Your task to perform on an android device: see sites visited before in the chrome app Image 0: 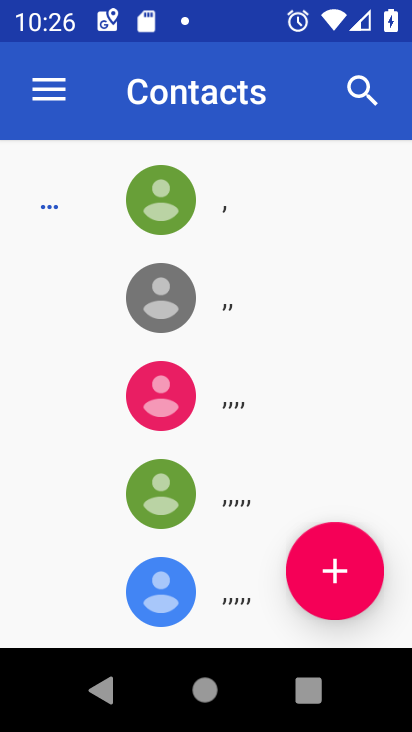
Step 0: press home button
Your task to perform on an android device: see sites visited before in the chrome app Image 1: 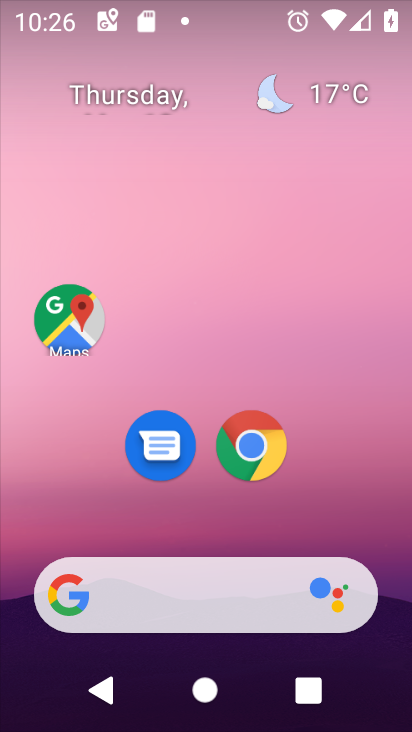
Step 1: drag from (266, 518) to (280, 188)
Your task to perform on an android device: see sites visited before in the chrome app Image 2: 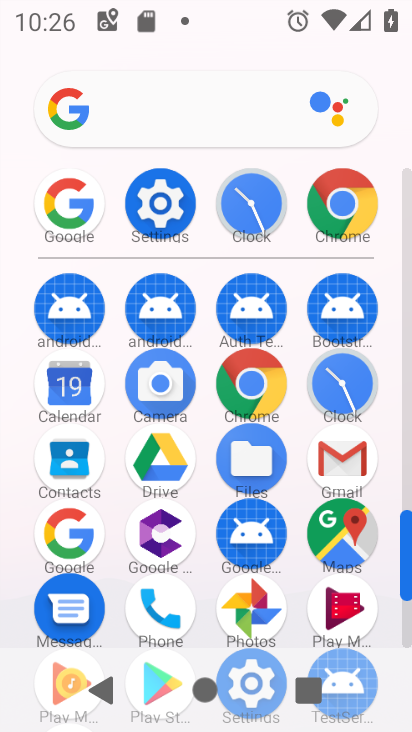
Step 2: click (256, 382)
Your task to perform on an android device: see sites visited before in the chrome app Image 3: 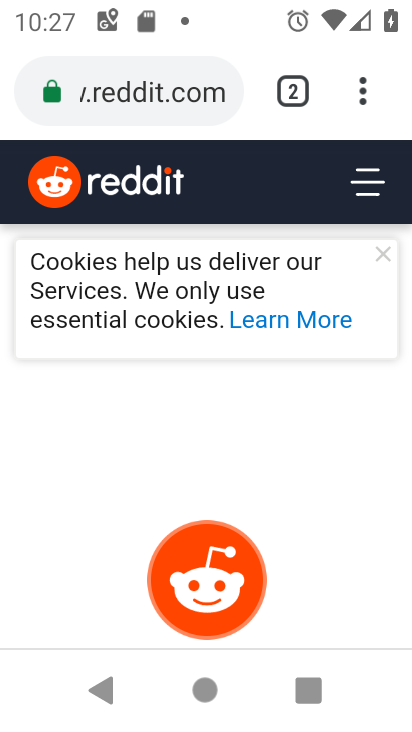
Step 3: click (356, 100)
Your task to perform on an android device: see sites visited before in the chrome app Image 4: 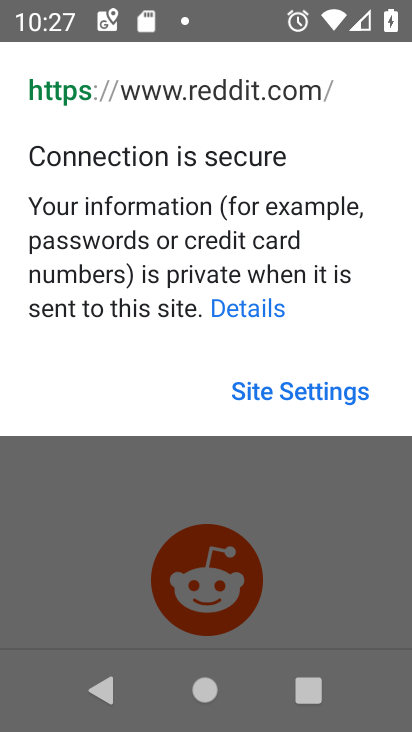
Step 4: click (326, 405)
Your task to perform on an android device: see sites visited before in the chrome app Image 5: 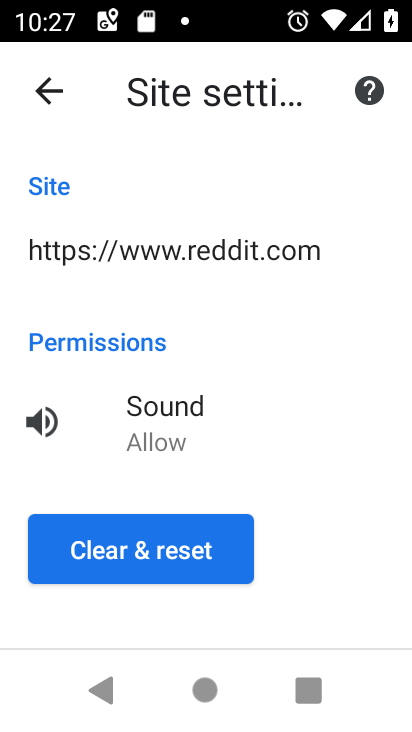
Step 5: click (84, 695)
Your task to perform on an android device: see sites visited before in the chrome app Image 6: 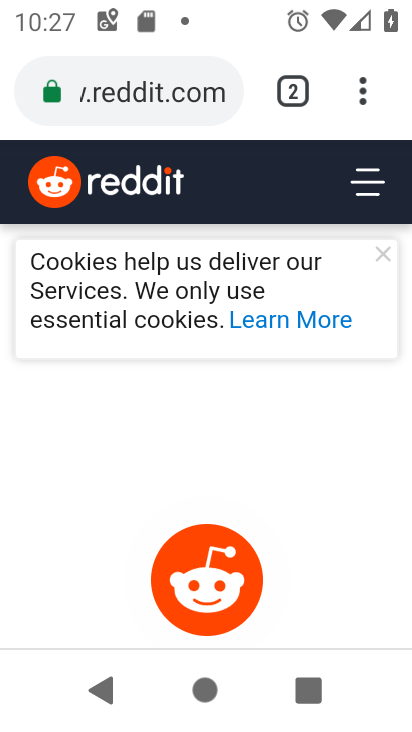
Step 6: click (362, 97)
Your task to perform on an android device: see sites visited before in the chrome app Image 7: 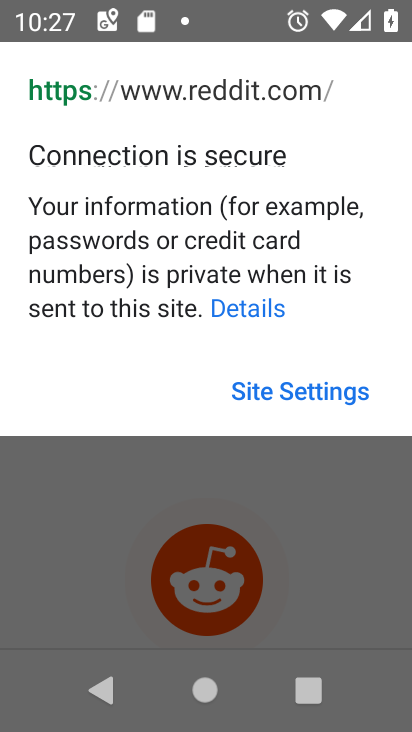
Step 7: task complete